Your task to perform on an android device: open a new tab in the chrome app Image 0: 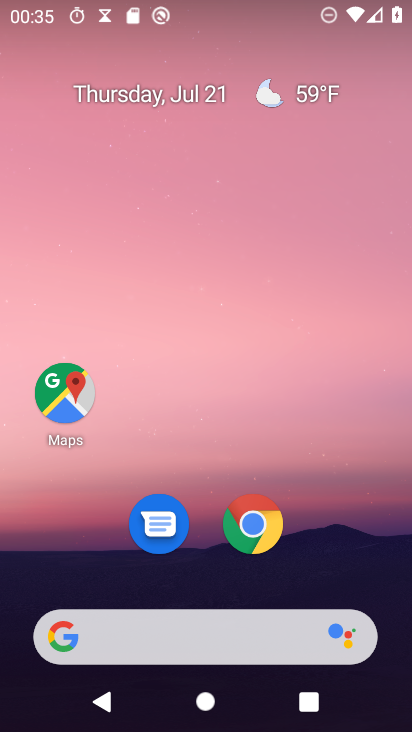
Step 0: drag from (159, 632) to (347, 119)
Your task to perform on an android device: open a new tab in the chrome app Image 1: 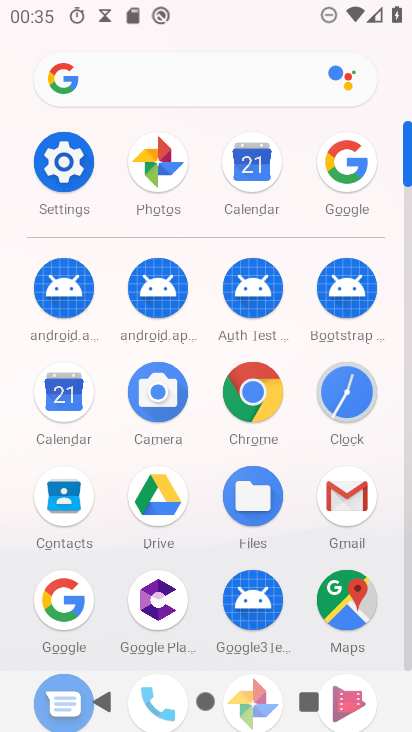
Step 1: click (256, 395)
Your task to perform on an android device: open a new tab in the chrome app Image 2: 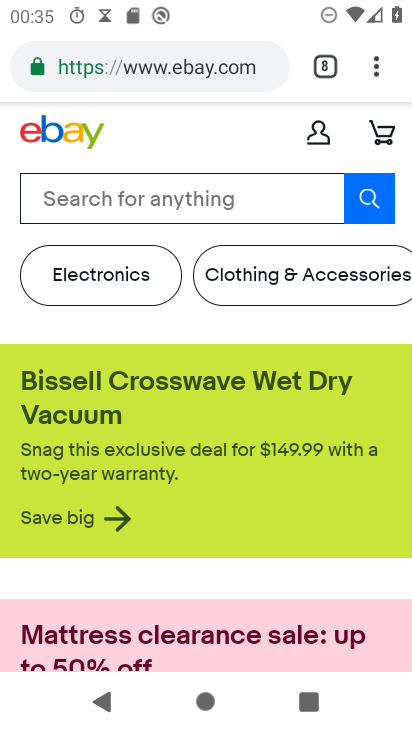
Step 2: task complete